Your task to perform on an android device: Open calendar and show me the first week of next month Image 0: 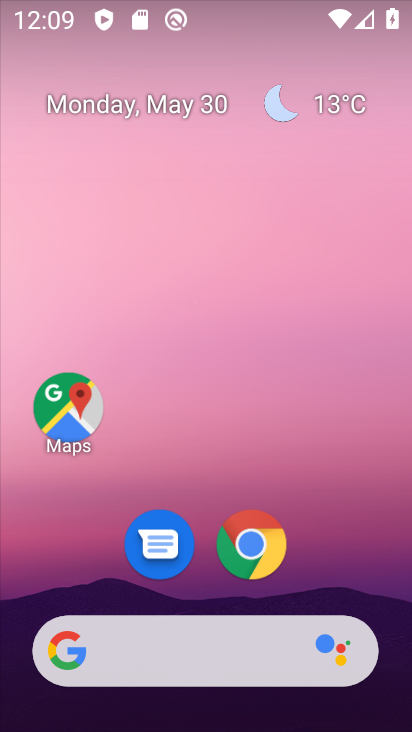
Step 0: task complete